Your task to perform on an android device: Open Google Chrome and click the shortcut for Amazon.com Image 0: 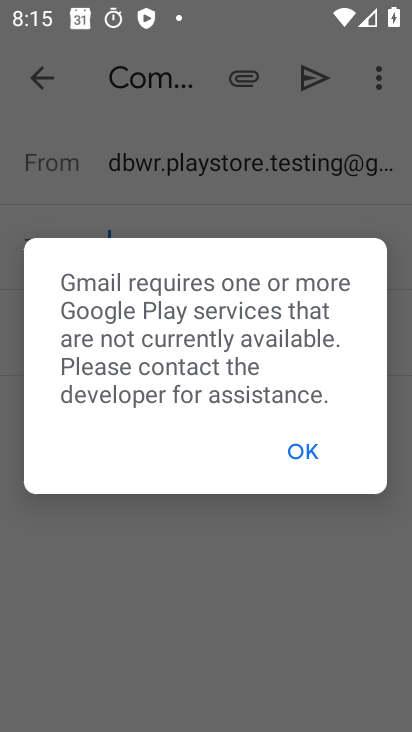
Step 0: click (306, 446)
Your task to perform on an android device: Open Google Chrome and click the shortcut for Amazon.com Image 1: 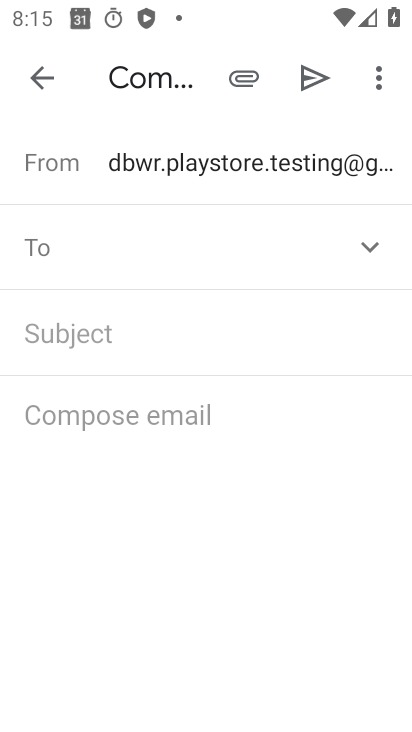
Step 1: click (43, 76)
Your task to perform on an android device: Open Google Chrome and click the shortcut for Amazon.com Image 2: 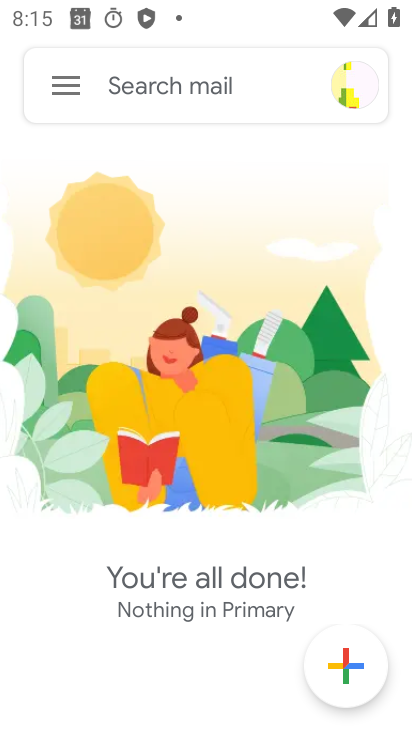
Step 2: press home button
Your task to perform on an android device: Open Google Chrome and click the shortcut for Amazon.com Image 3: 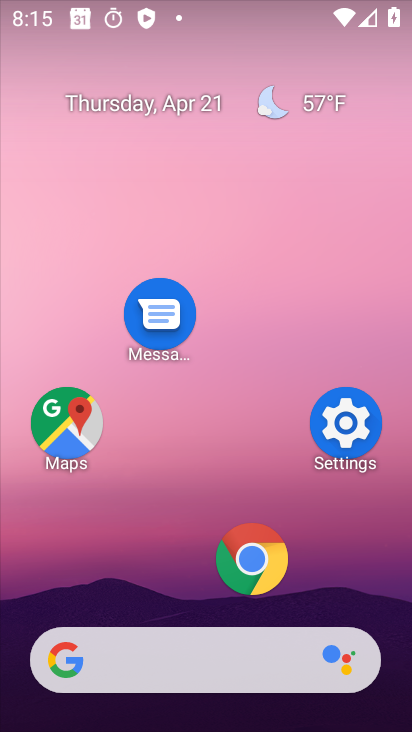
Step 3: drag from (329, 705) to (272, 30)
Your task to perform on an android device: Open Google Chrome and click the shortcut for Amazon.com Image 4: 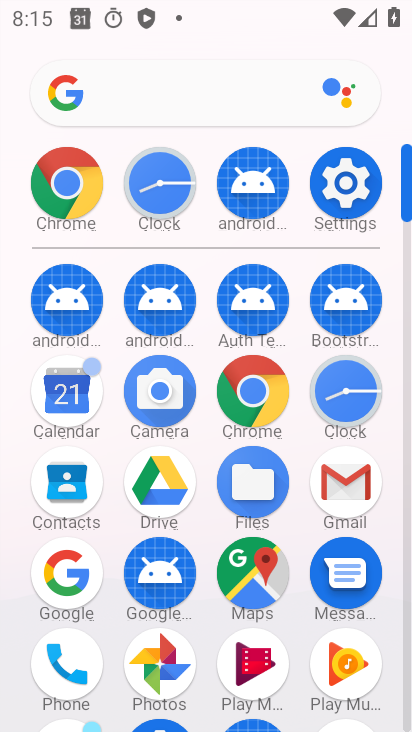
Step 4: click (257, 400)
Your task to perform on an android device: Open Google Chrome and click the shortcut for Amazon.com Image 5: 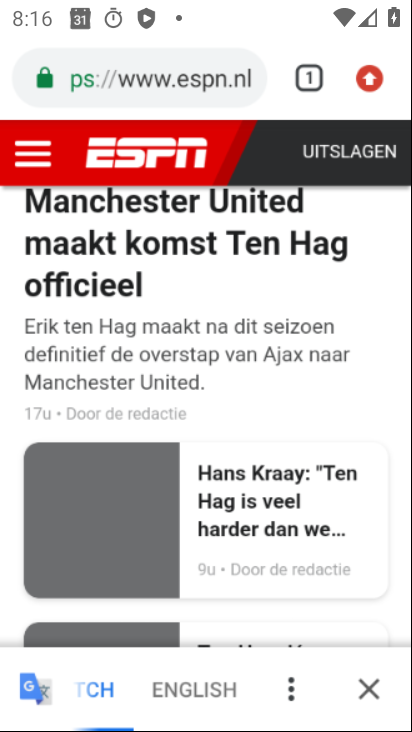
Step 5: click (257, 400)
Your task to perform on an android device: Open Google Chrome and click the shortcut for Amazon.com Image 6: 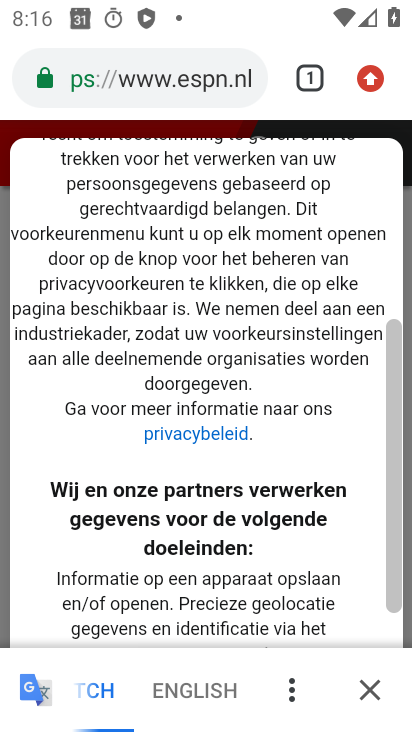
Step 6: drag from (372, 74) to (60, 239)
Your task to perform on an android device: Open Google Chrome and click the shortcut for Amazon.com Image 7: 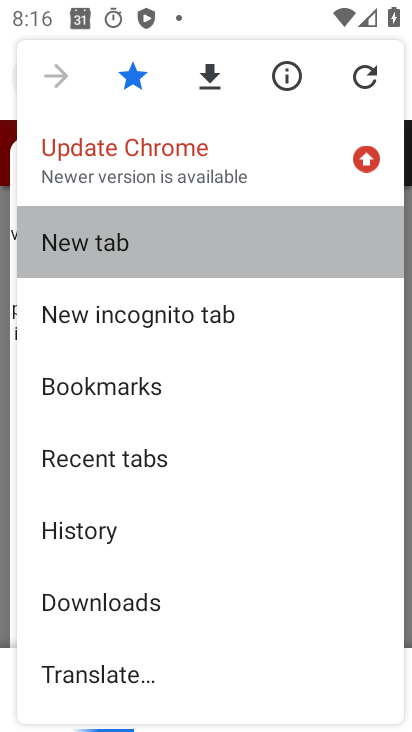
Step 7: click (60, 239)
Your task to perform on an android device: Open Google Chrome and click the shortcut for Amazon.com Image 8: 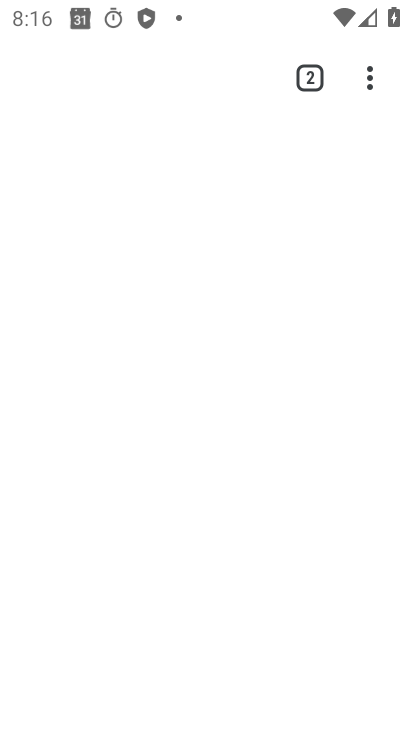
Step 8: click (60, 239)
Your task to perform on an android device: Open Google Chrome and click the shortcut for Amazon.com Image 9: 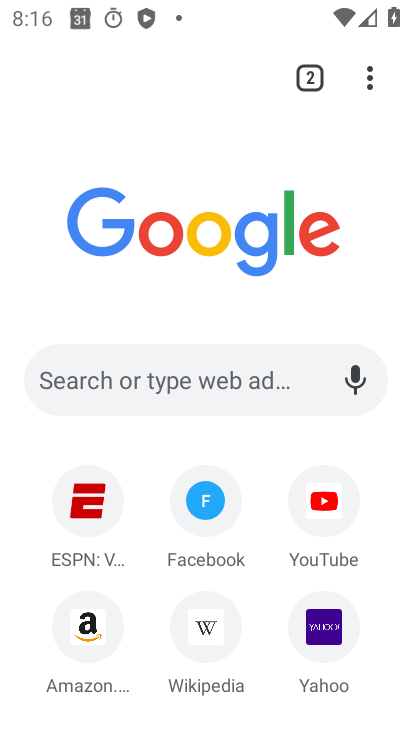
Step 9: click (97, 635)
Your task to perform on an android device: Open Google Chrome and click the shortcut for Amazon.com Image 10: 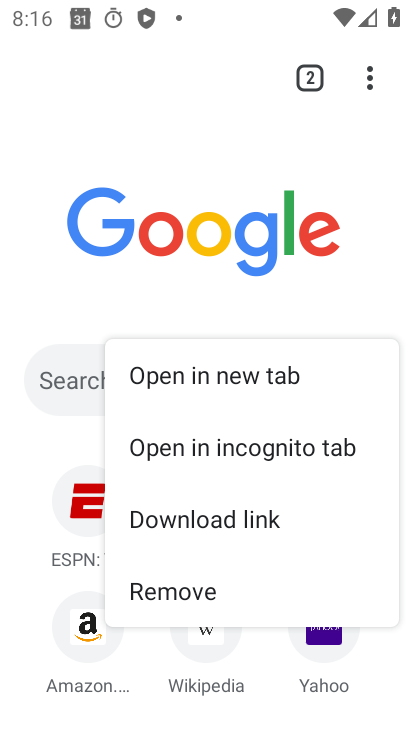
Step 10: click (96, 622)
Your task to perform on an android device: Open Google Chrome and click the shortcut for Amazon.com Image 11: 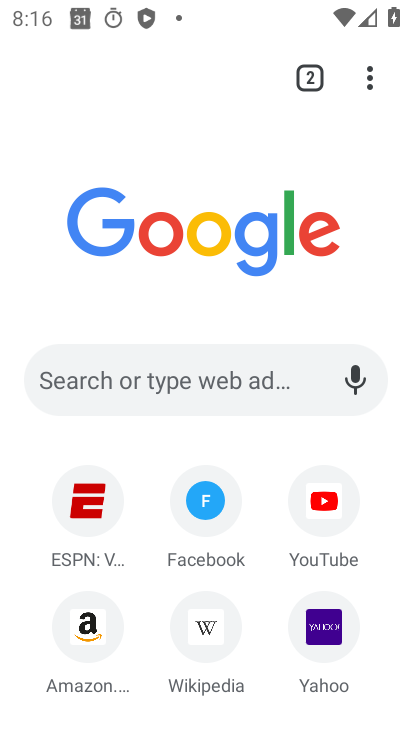
Step 11: click (102, 612)
Your task to perform on an android device: Open Google Chrome and click the shortcut for Amazon.com Image 12: 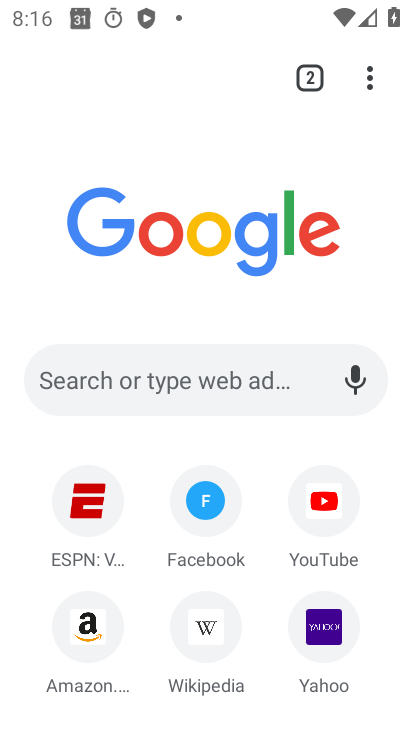
Step 12: click (98, 619)
Your task to perform on an android device: Open Google Chrome and click the shortcut for Amazon.com Image 13: 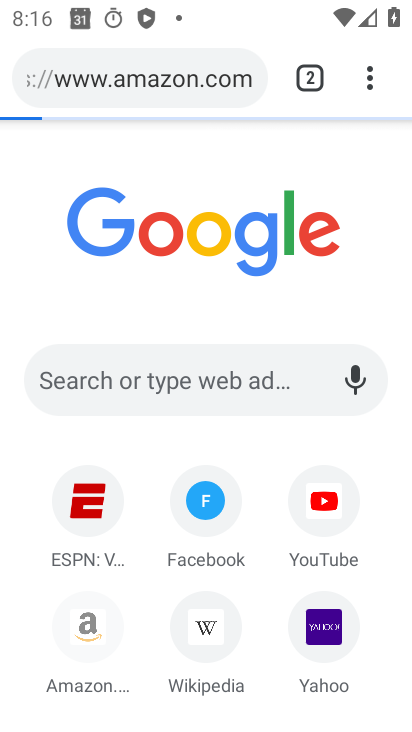
Step 13: click (94, 620)
Your task to perform on an android device: Open Google Chrome and click the shortcut for Amazon.com Image 14: 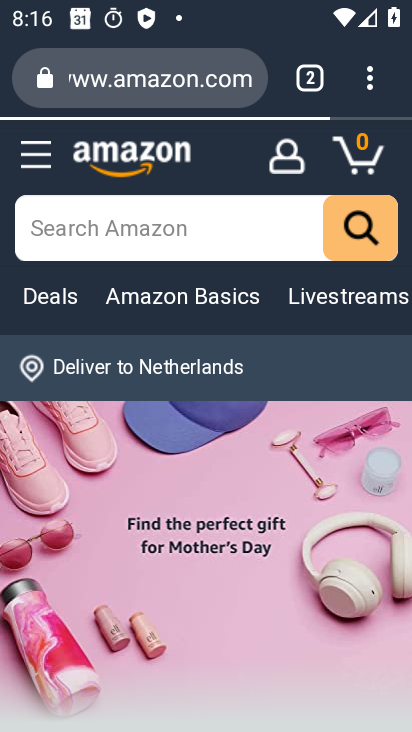
Step 14: task complete